Your task to perform on an android device: Go to Yahoo.com Image 0: 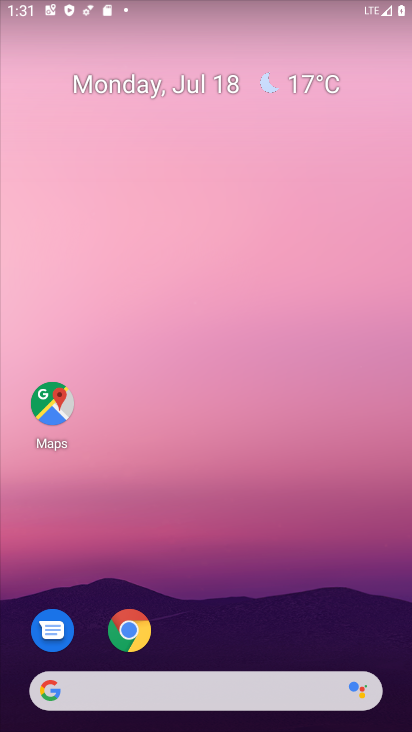
Step 0: click (289, 699)
Your task to perform on an android device: Go to Yahoo.com Image 1: 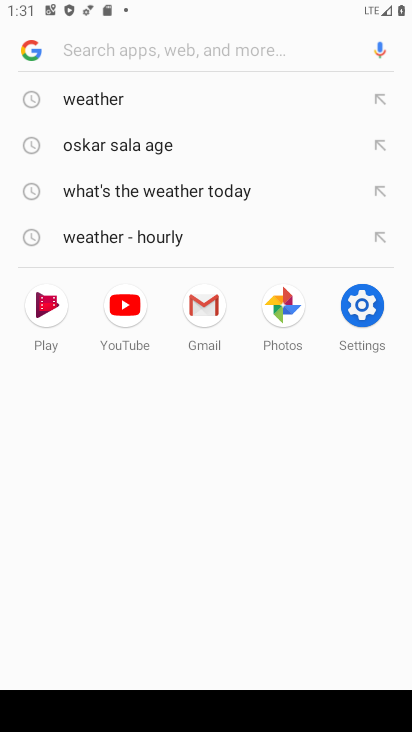
Step 1: type "yahoo.com"
Your task to perform on an android device: Go to Yahoo.com Image 2: 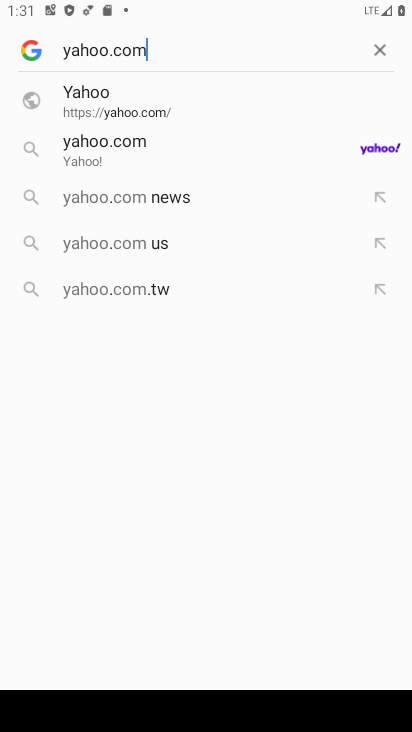
Step 2: click (384, 147)
Your task to perform on an android device: Go to Yahoo.com Image 3: 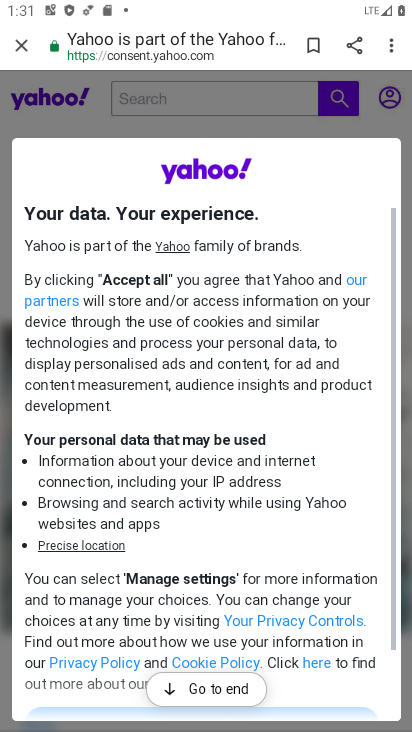
Step 3: click (255, 684)
Your task to perform on an android device: Go to Yahoo.com Image 4: 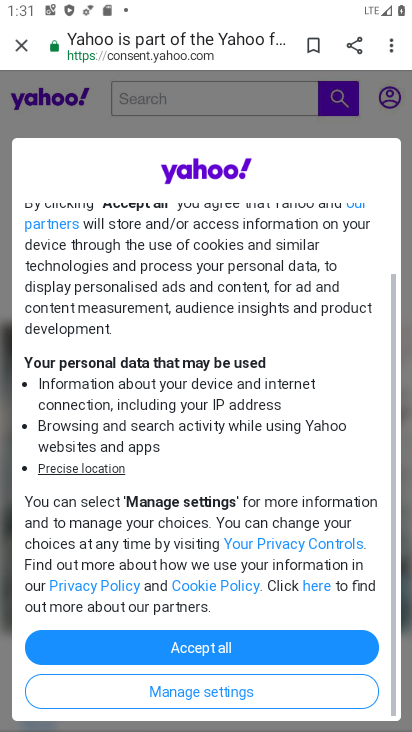
Step 4: click (288, 644)
Your task to perform on an android device: Go to Yahoo.com Image 5: 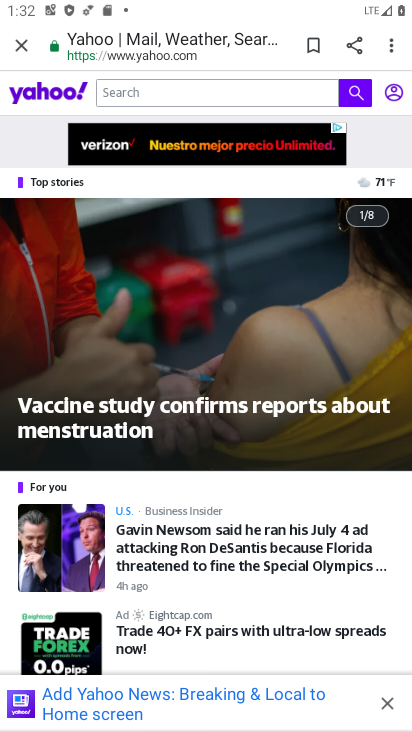
Step 5: task complete